Your task to perform on an android device: Open the map Image 0: 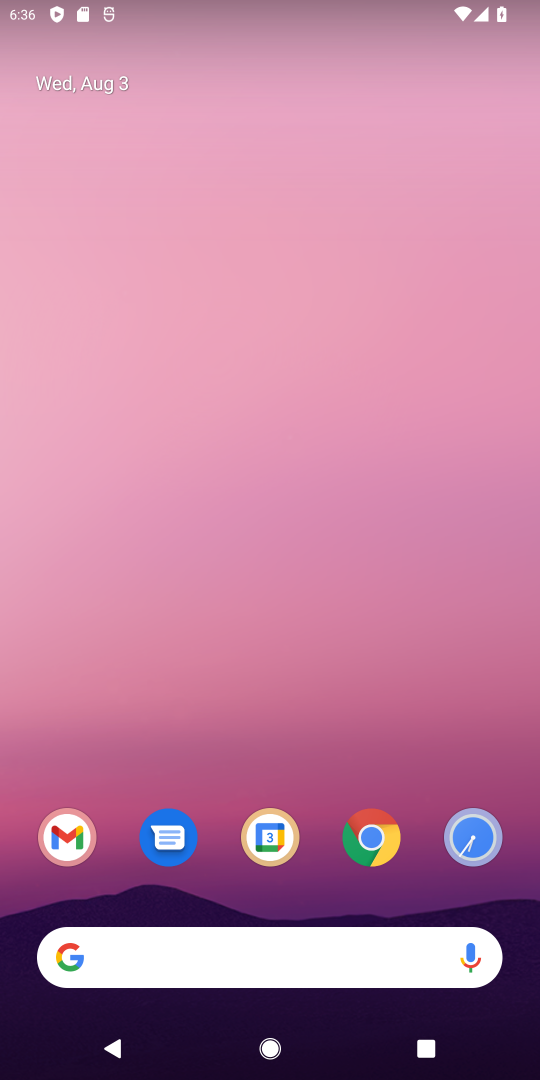
Step 0: press home button
Your task to perform on an android device: Open the map Image 1: 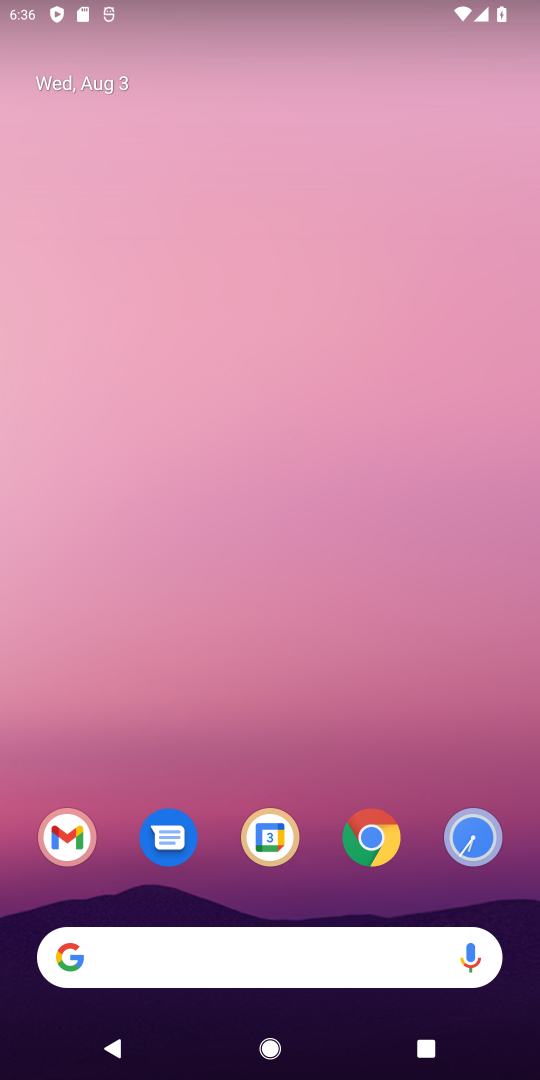
Step 1: drag from (380, 722) to (393, 105)
Your task to perform on an android device: Open the map Image 2: 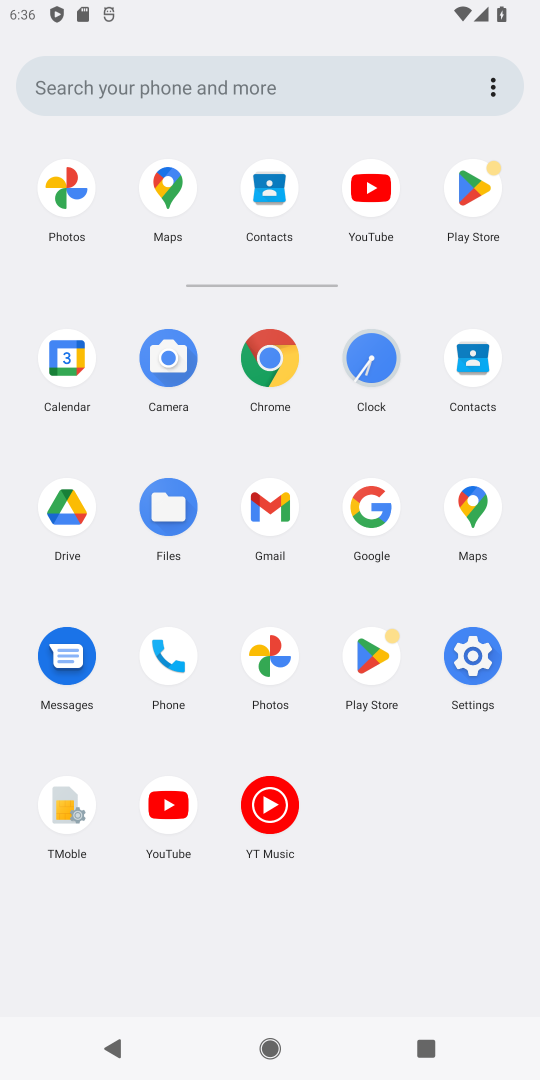
Step 2: click (179, 199)
Your task to perform on an android device: Open the map Image 3: 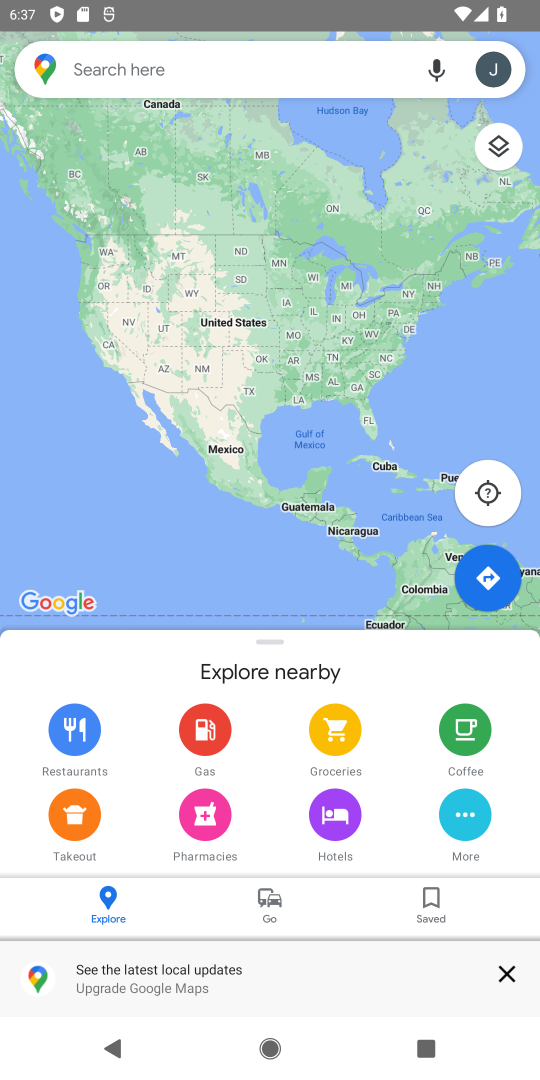
Step 3: task complete